Your task to perform on an android device: Do I have any events this weekend? Image 0: 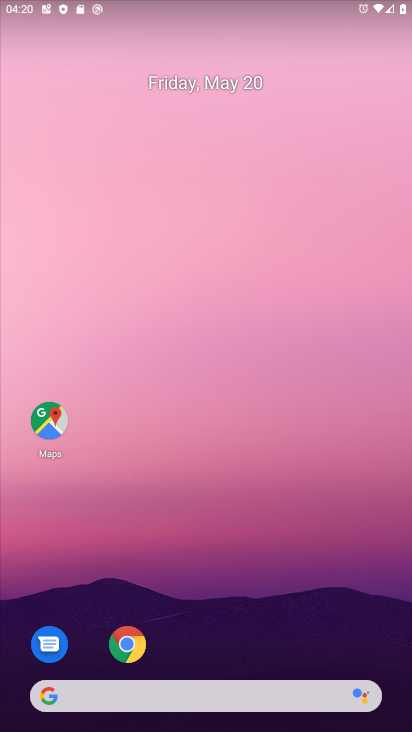
Step 0: drag from (318, 574) to (162, 0)
Your task to perform on an android device: Do I have any events this weekend? Image 1: 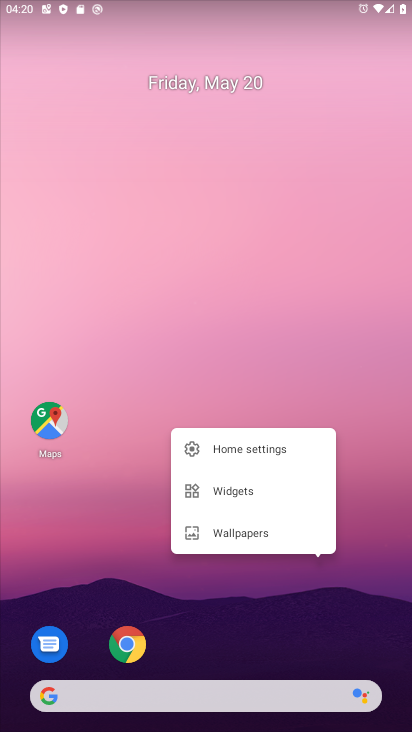
Step 1: click (193, 95)
Your task to perform on an android device: Do I have any events this weekend? Image 2: 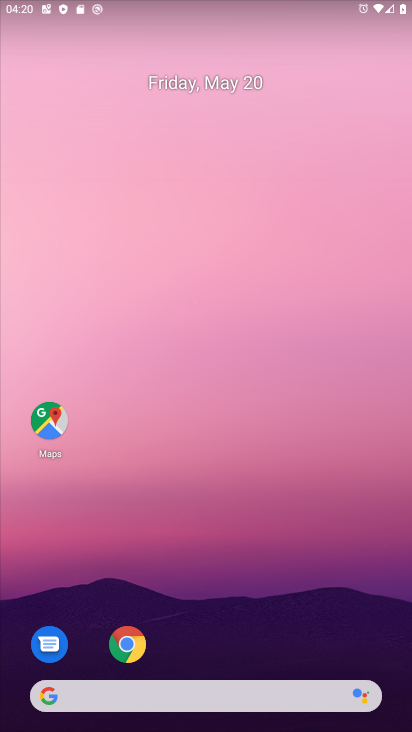
Step 2: drag from (237, 612) to (228, 75)
Your task to perform on an android device: Do I have any events this weekend? Image 3: 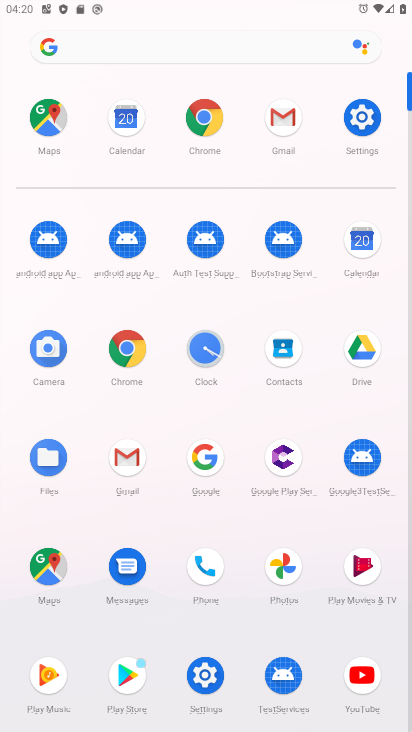
Step 3: click (365, 268)
Your task to perform on an android device: Do I have any events this weekend? Image 4: 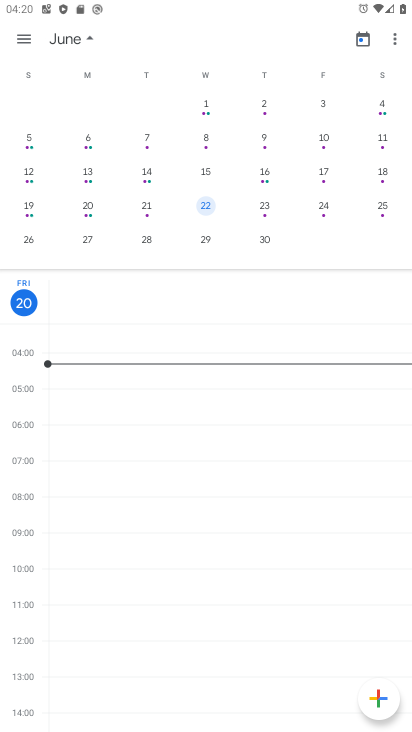
Step 4: task complete